Your task to perform on an android device: open device folders in google photos Image 0: 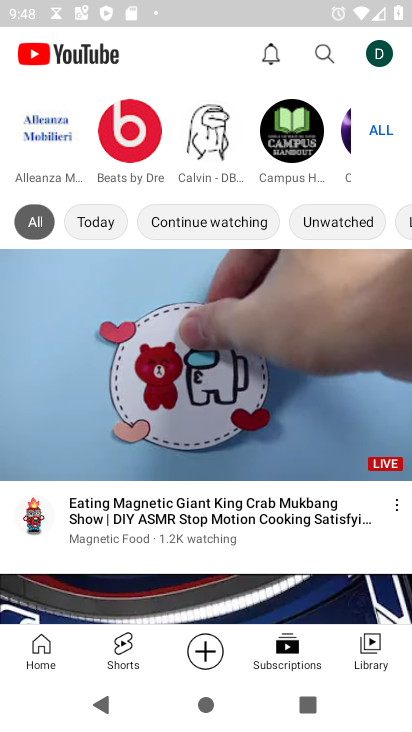
Step 0: press home button
Your task to perform on an android device: open device folders in google photos Image 1: 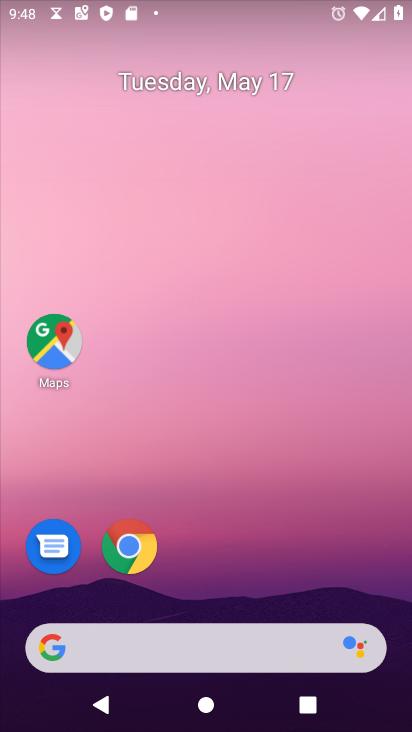
Step 1: drag from (270, 598) to (295, 149)
Your task to perform on an android device: open device folders in google photos Image 2: 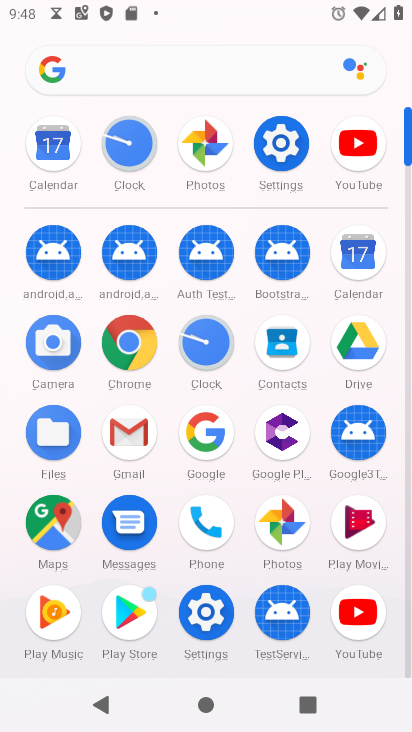
Step 2: click (277, 509)
Your task to perform on an android device: open device folders in google photos Image 3: 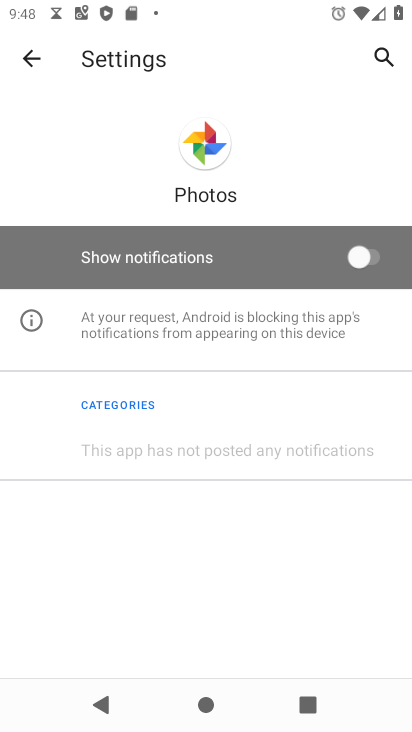
Step 3: click (34, 56)
Your task to perform on an android device: open device folders in google photos Image 4: 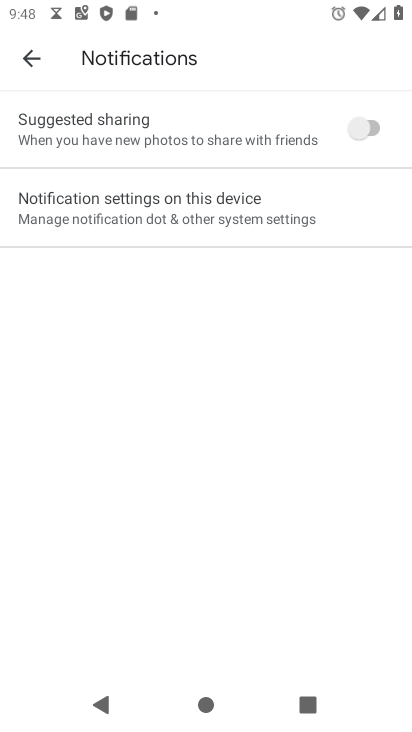
Step 4: click (34, 56)
Your task to perform on an android device: open device folders in google photos Image 5: 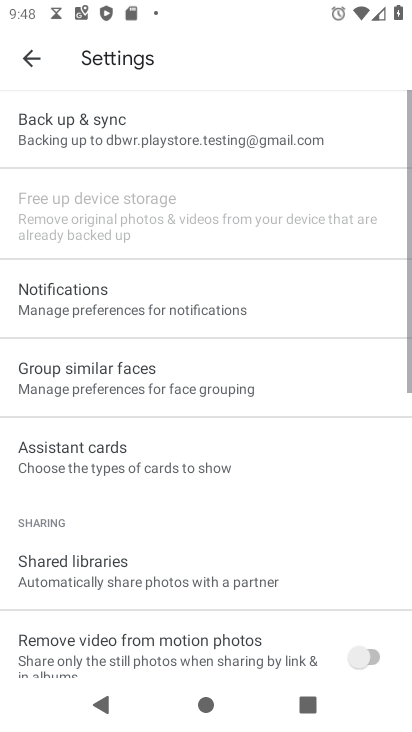
Step 5: click (34, 56)
Your task to perform on an android device: open device folders in google photos Image 6: 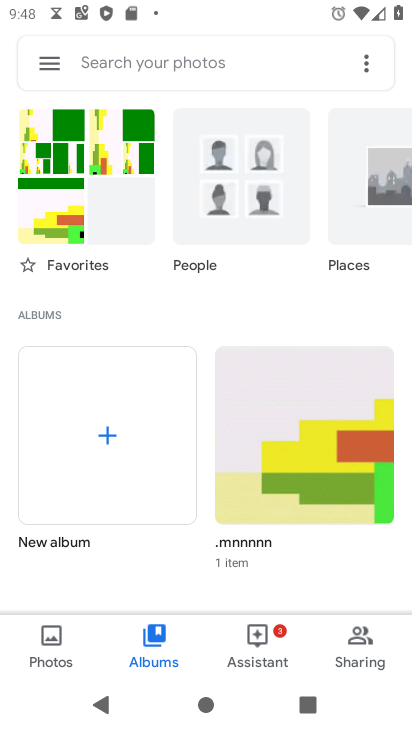
Step 6: click (34, 56)
Your task to perform on an android device: open device folders in google photos Image 7: 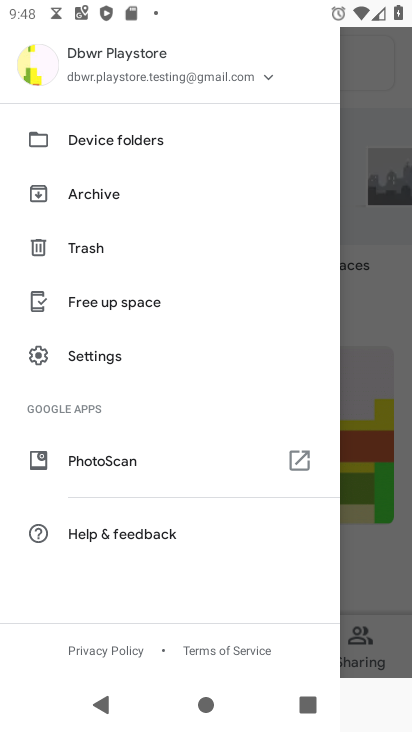
Step 7: click (98, 134)
Your task to perform on an android device: open device folders in google photos Image 8: 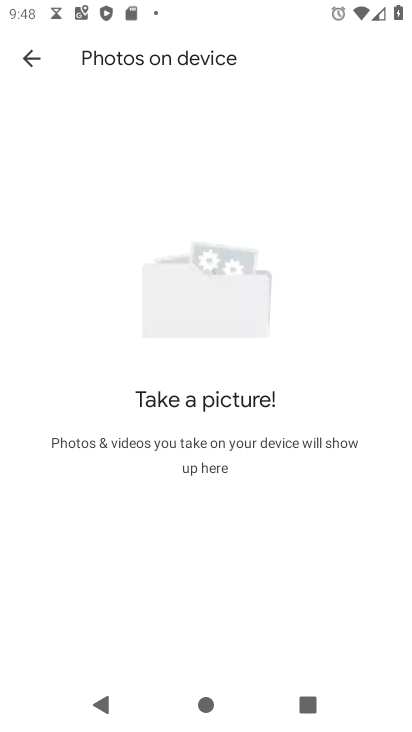
Step 8: task complete